Your task to perform on an android device: change the clock display to analog Image 0: 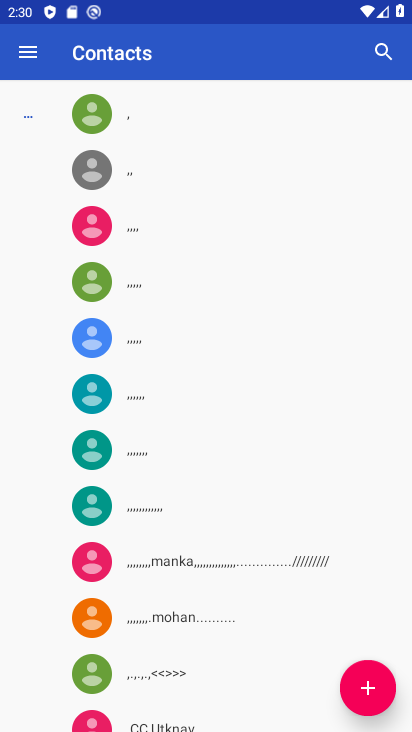
Step 0: press home button
Your task to perform on an android device: change the clock display to analog Image 1: 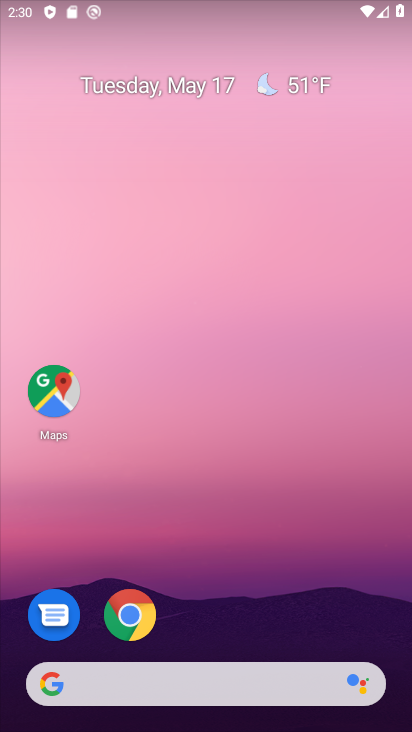
Step 1: drag from (204, 646) to (243, 2)
Your task to perform on an android device: change the clock display to analog Image 2: 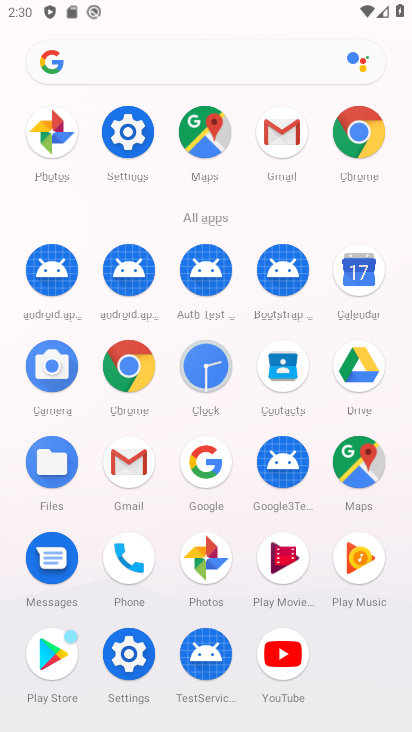
Step 2: click (202, 362)
Your task to perform on an android device: change the clock display to analog Image 3: 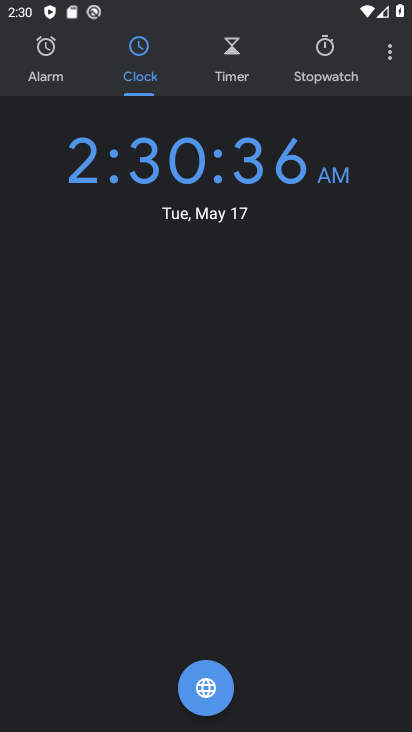
Step 3: click (384, 48)
Your task to perform on an android device: change the clock display to analog Image 4: 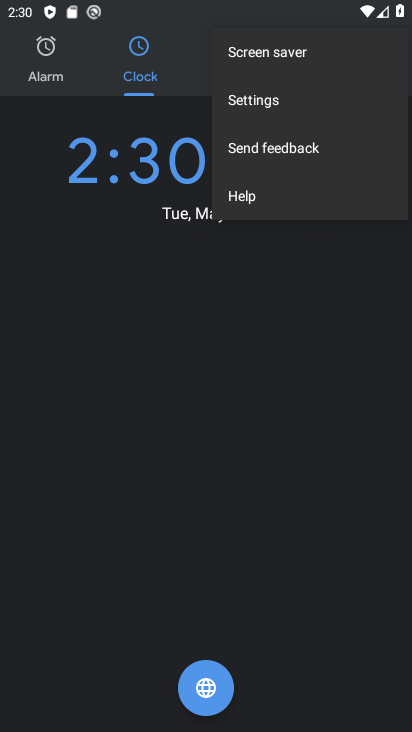
Step 4: click (267, 94)
Your task to perform on an android device: change the clock display to analog Image 5: 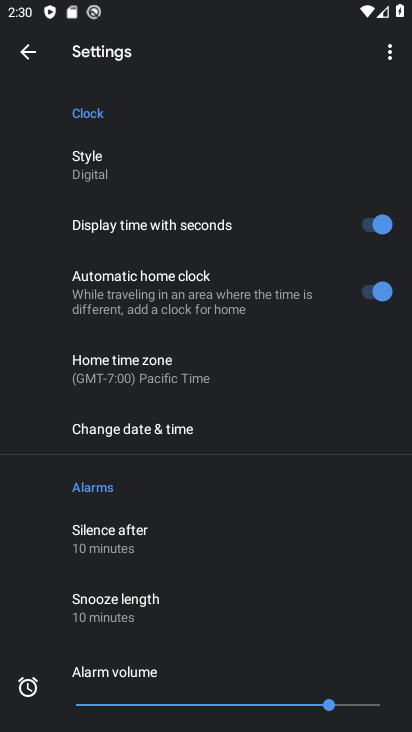
Step 5: click (124, 164)
Your task to perform on an android device: change the clock display to analog Image 6: 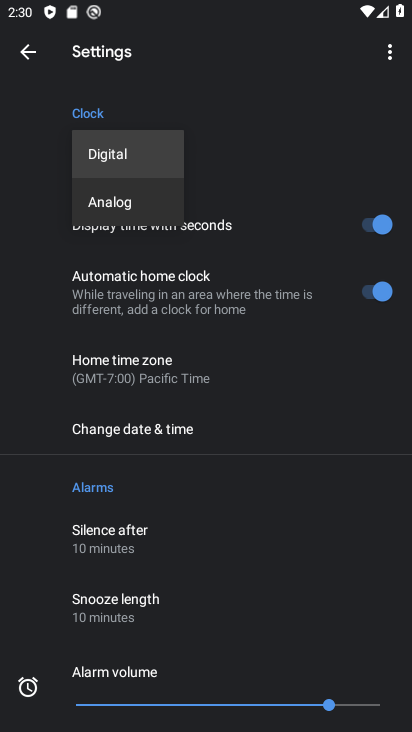
Step 6: click (122, 210)
Your task to perform on an android device: change the clock display to analog Image 7: 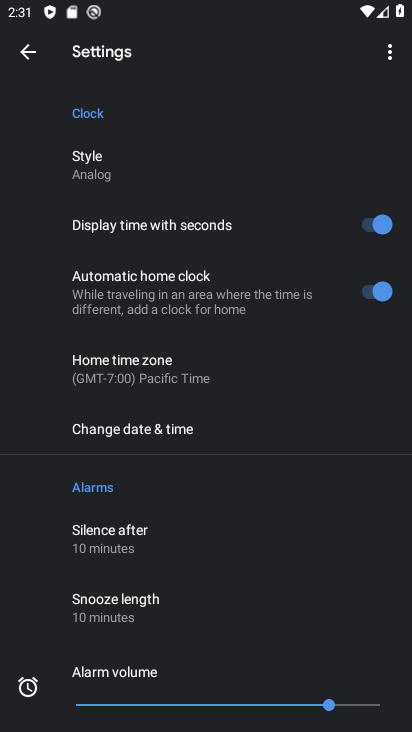
Step 7: task complete